Your task to perform on an android device: Open wifi settings Image 0: 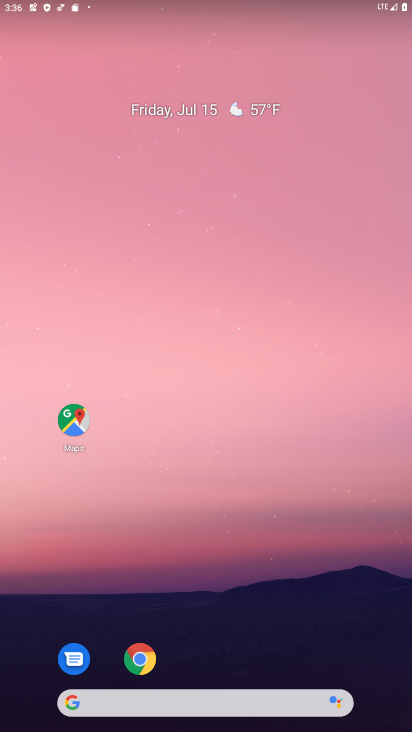
Step 0: drag from (188, 688) to (183, 523)
Your task to perform on an android device: Open wifi settings Image 1: 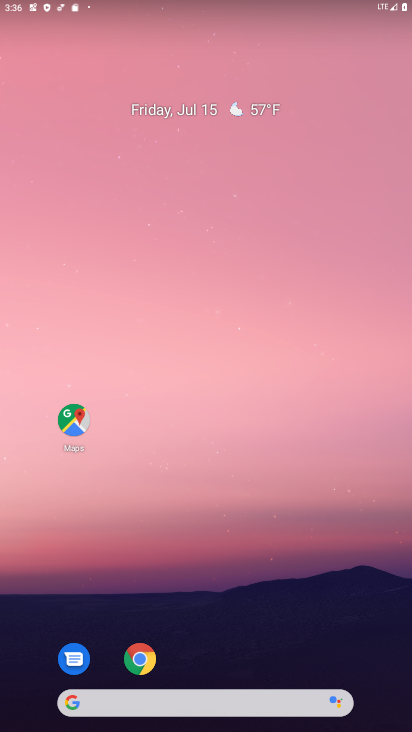
Step 1: drag from (232, 693) to (220, 451)
Your task to perform on an android device: Open wifi settings Image 2: 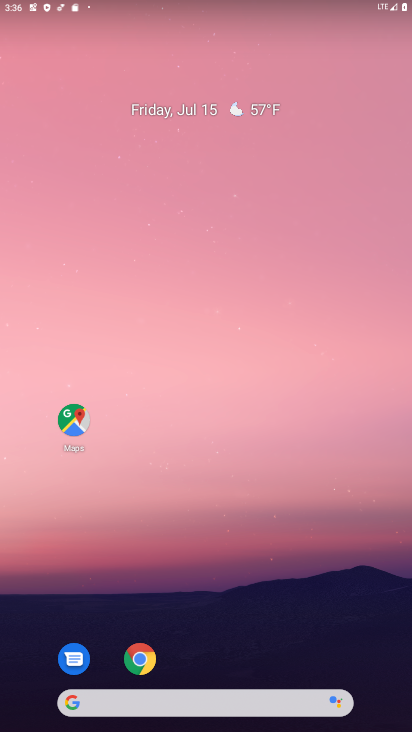
Step 2: drag from (220, 677) to (222, 229)
Your task to perform on an android device: Open wifi settings Image 3: 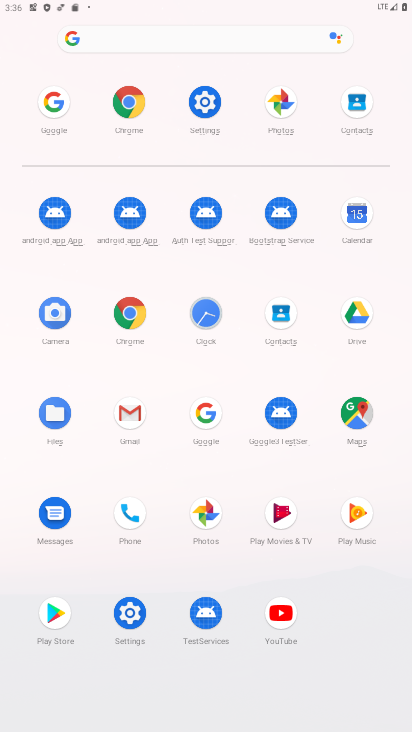
Step 3: click (199, 105)
Your task to perform on an android device: Open wifi settings Image 4: 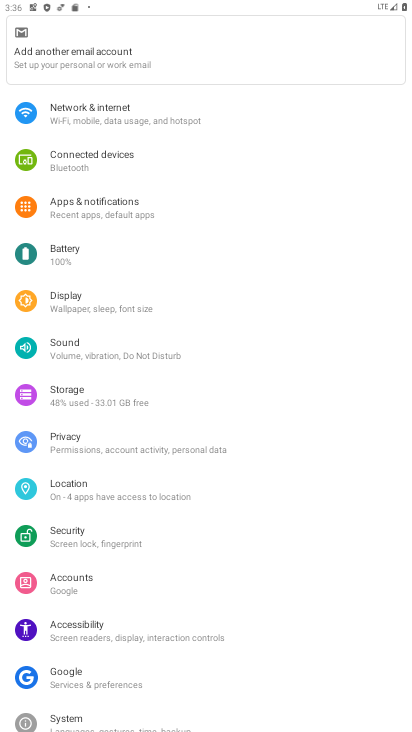
Step 4: click (106, 110)
Your task to perform on an android device: Open wifi settings Image 5: 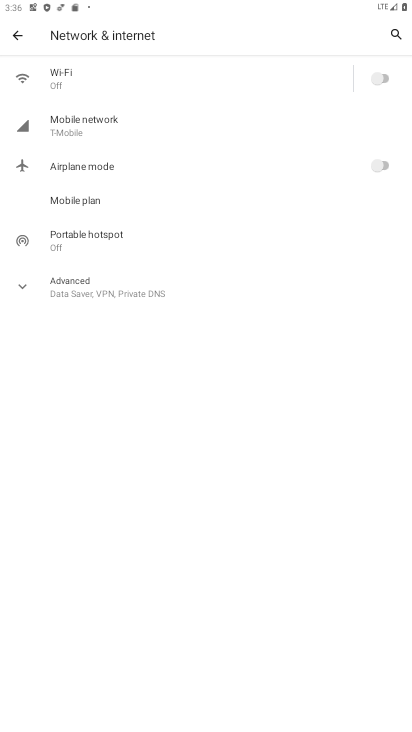
Step 5: click (67, 78)
Your task to perform on an android device: Open wifi settings Image 6: 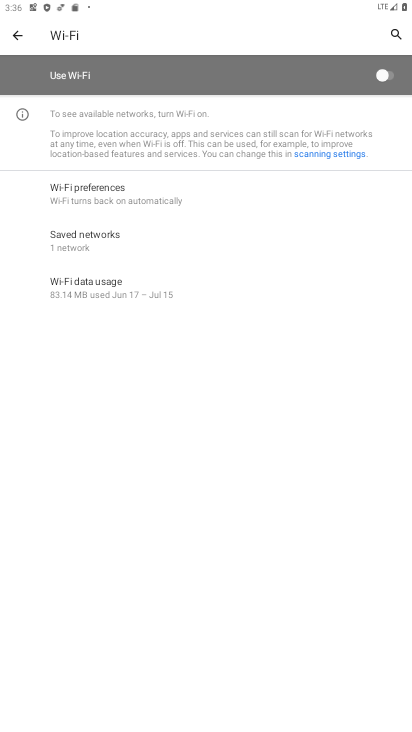
Step 6: click (380, 79)
Your task to perform on an android device: Open wifi settings Image 7: 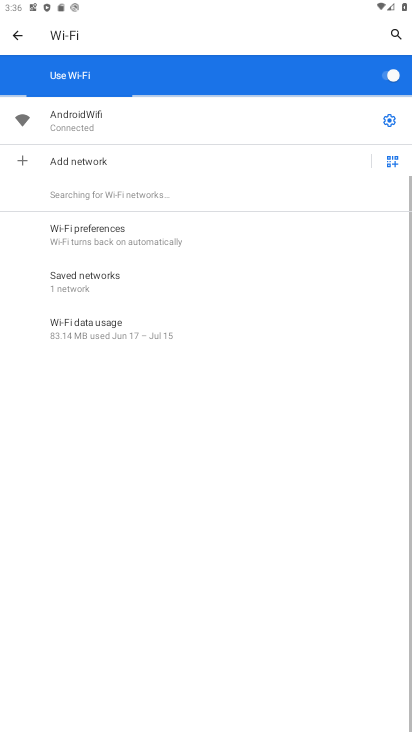
Step 7: click (389, 119)
Your task to perform on an android device: Open wifi settings Image 8: 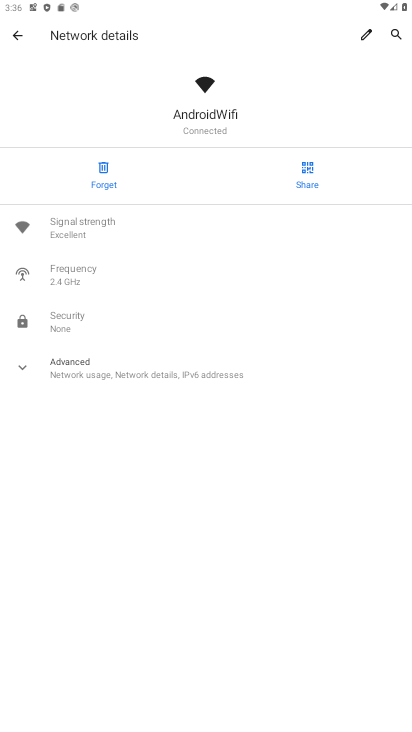
Step 8: click (99, 376)
Your task to perform on an android device: Open wifi settings Image 9: 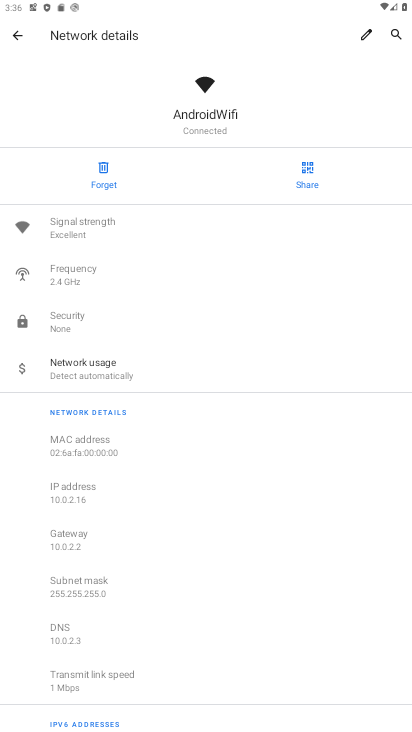
Step 9: task complete